Your task to perform on an android device: Go to settings Image 0: 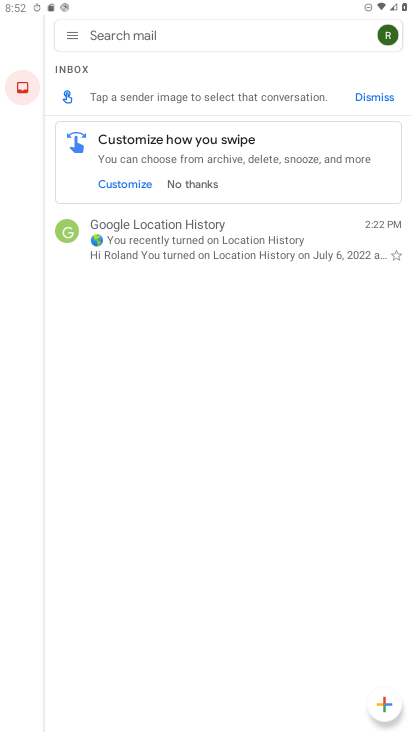
Step 0: press home button
Your task to perform on an android device: Go to settings Image 1: 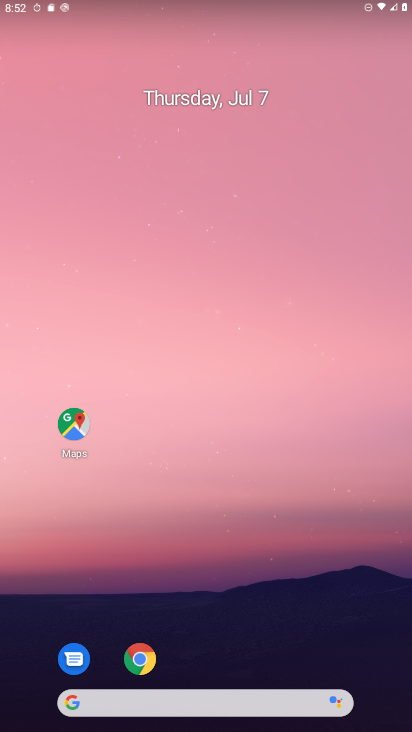
Step 1: drag from (363, 690) to (329, 18)
Your task to perform on an android device: Go to settings Image 2: 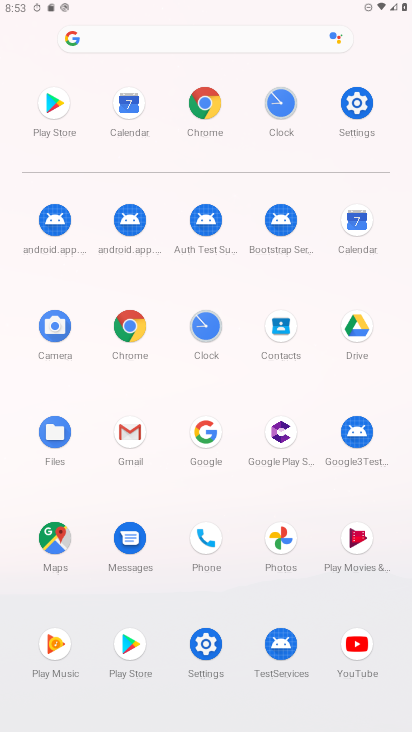
Step 2: click (238, 644)
Your task to perform on an android device: Go to settings Image 3: 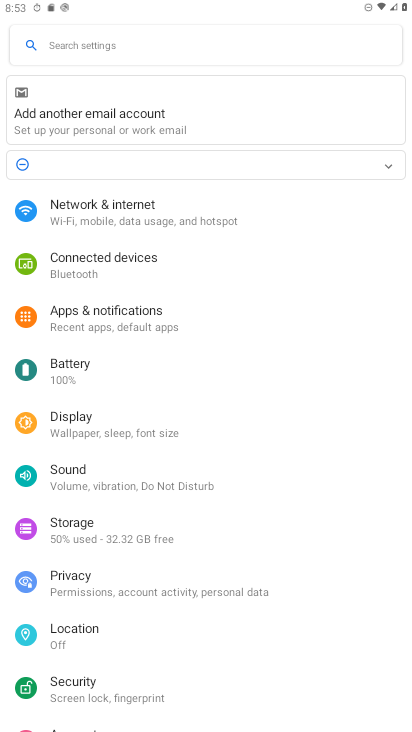
Step 3: task complete